Your task to perform on an android device: turn off airplane mode Image 0: 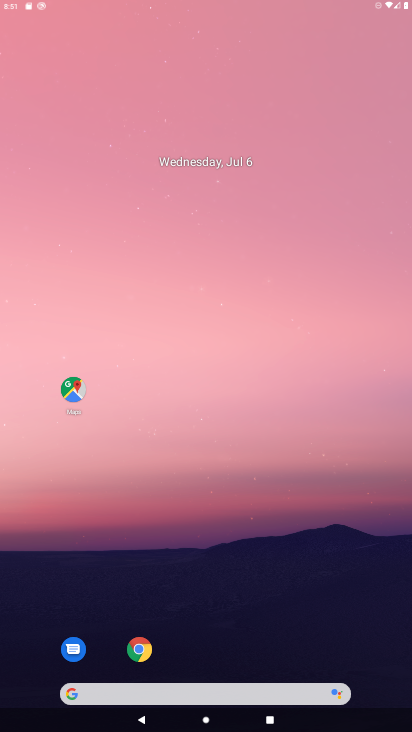
Step 0: drag from (286, 729) to (259, 237)
Your task to perform on an android device: turn off airplane mode Image 1: 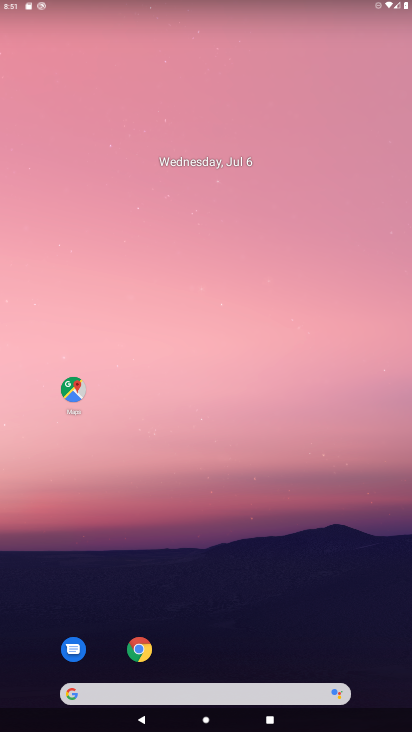
Step 1: drag from (257, 468) to (257, 239)
Your task to perform on an android device: turn off airplane mode Image 2: 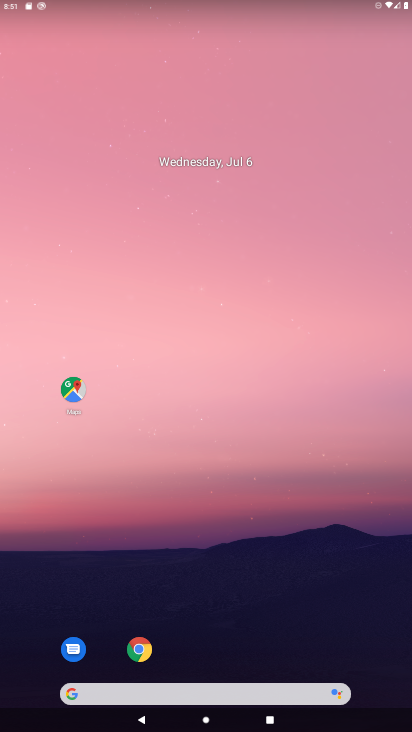
Step 2: drag from (176, 387) to (170, 74)
Your task to perform on an android device: turn off airplane mode Image 3: 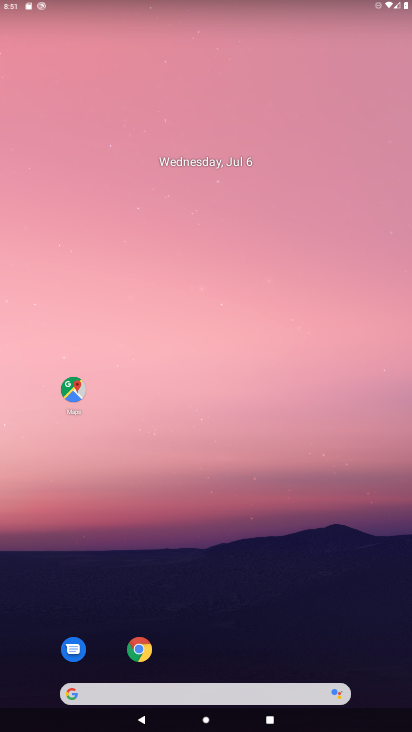
Step 3: drag from (252, 500) to (287, 13)
Your task to perform on an android device: turn off airplane mode Image 4: 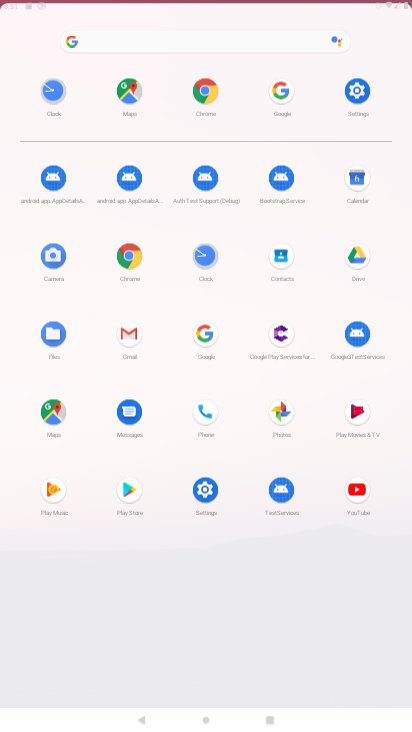
Step 4: drag from (290, 162) to (260, 41)
Your task to perform on an android device: turn off airplane mode Image 5: 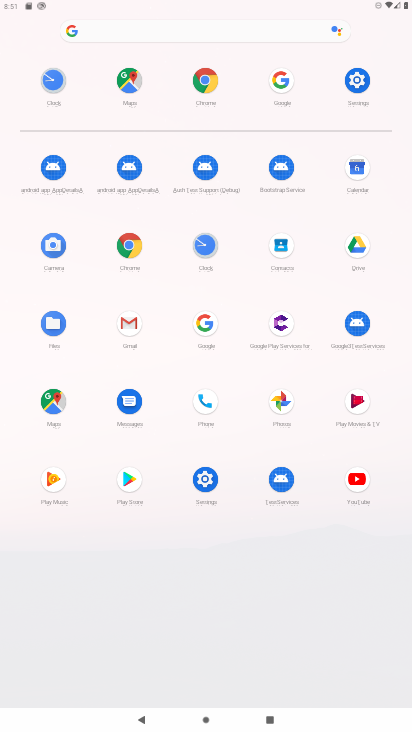
Step 5: click (355, 87)
Your task to perform on an android device: turn off airplane mode Image 6: 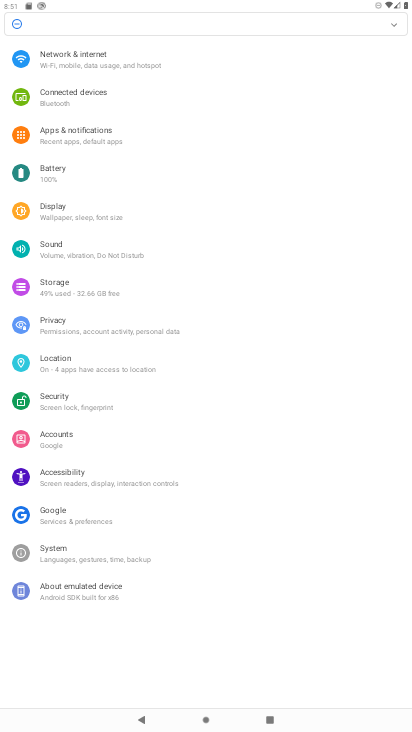
Step 6: click (355, 87)
Your task to perform on an android device: turn off airplane mode Image 7: 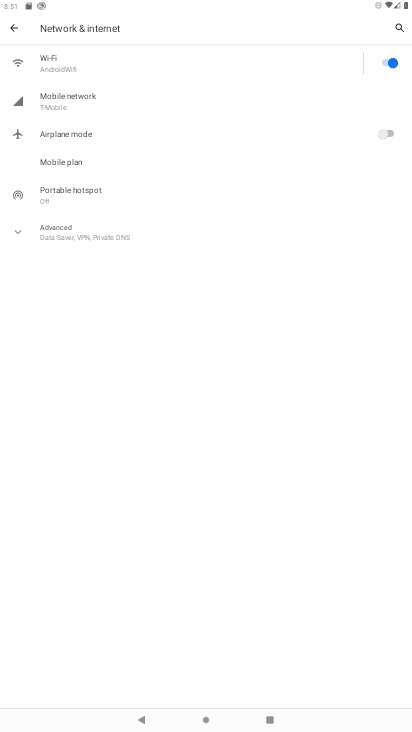
Step 7: click (388, 134)
Your task to perform on an android device: turn off airplane mode Image 8: 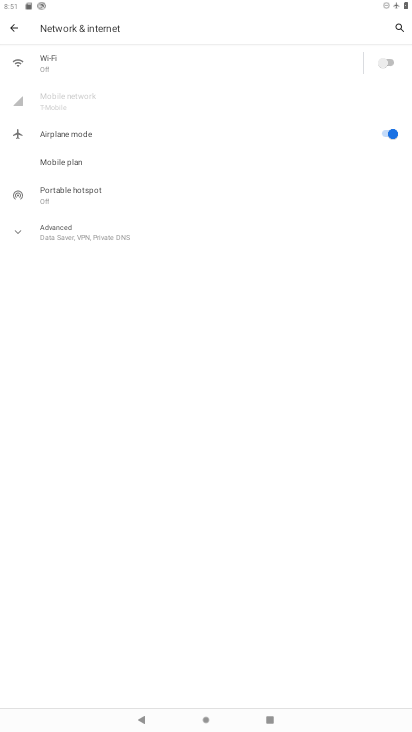
Step 8: click (394, 135)
Your task to perform on an android device: turn off airplane mode Image 9: 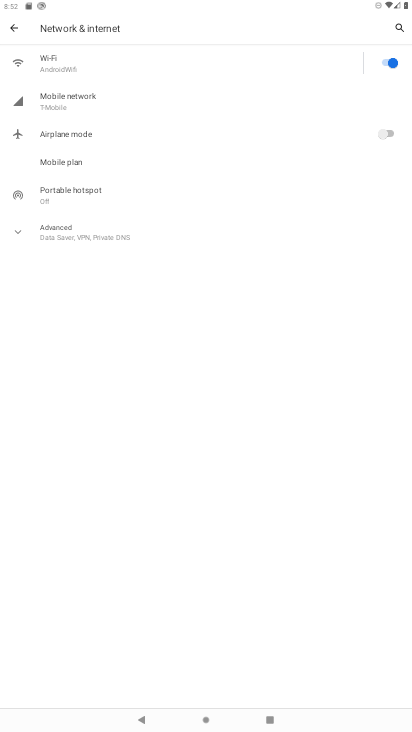
Step 9: task complete